Your task to perform on an android device: open device folders in google photos Image 0: 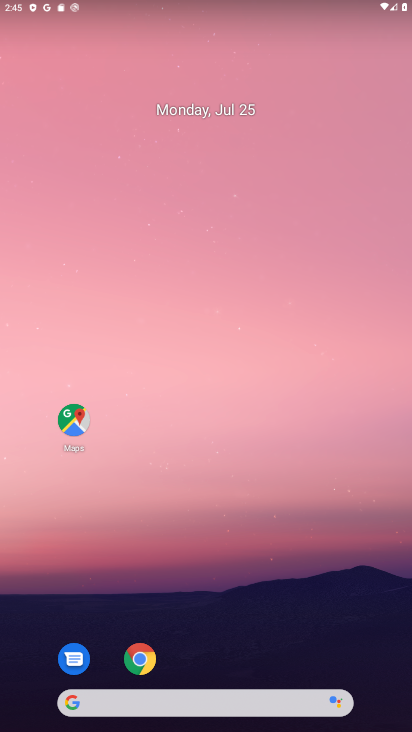
Step 0: drag from (208, 668) to (193, 43)
Your task to perform on an android device: open device folders in google photos Image 1: 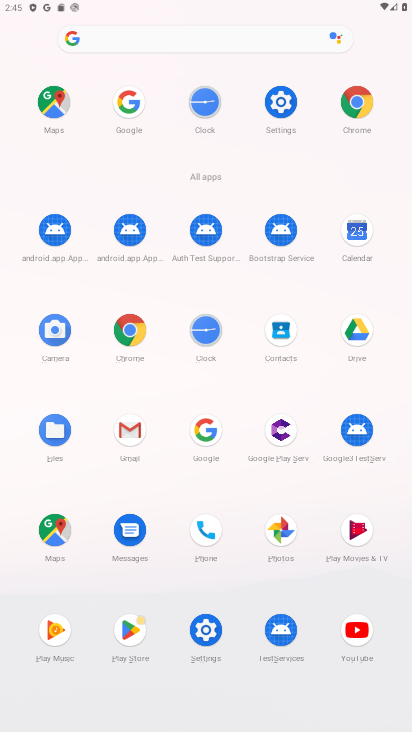
Step 1: click (277, 528)
Your task to perform on an android device: open device folders in google photos Image 2: 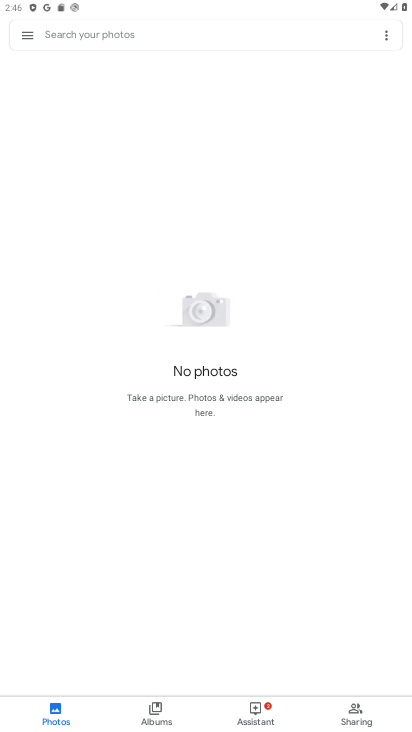
Step 2: click (21, 33)
Your task to perform on an android device: open device folders in google photos Image 3: 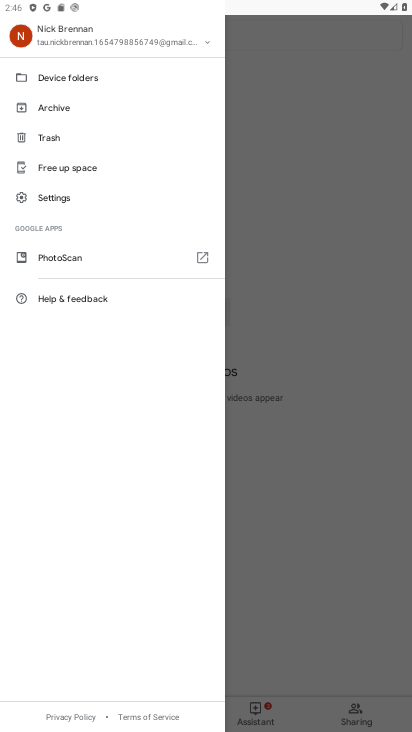
Step 3: click (70, 83)
Your task to perform on an android device: open device folders in google photos Image 4: 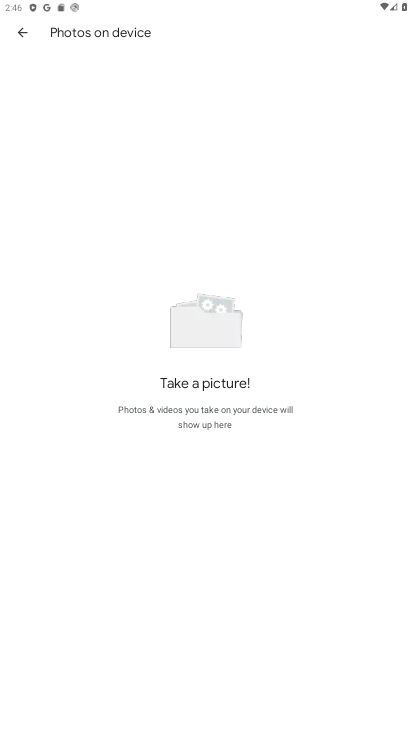
Step 4: task complete